Your task to perform on an android device: Go to Reddit.com Image 0: 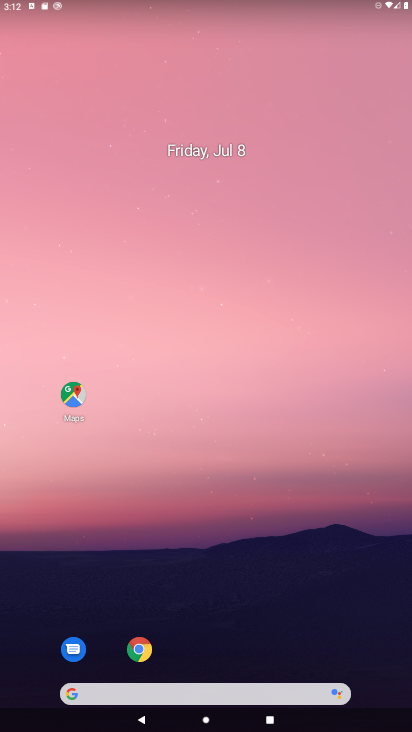
Step 0: click (141, 651)
Your task to perform on an android device: Go to Reddit.com Image 1: 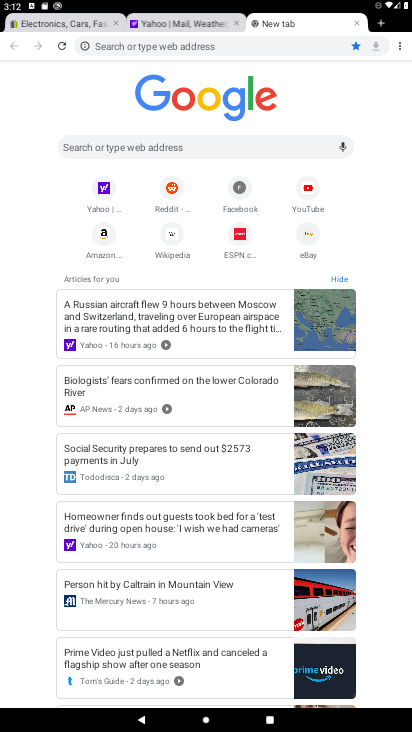
Step 1: click (128, 147)
Your task to perform on an android device: Go to Reddit.com Image 2: 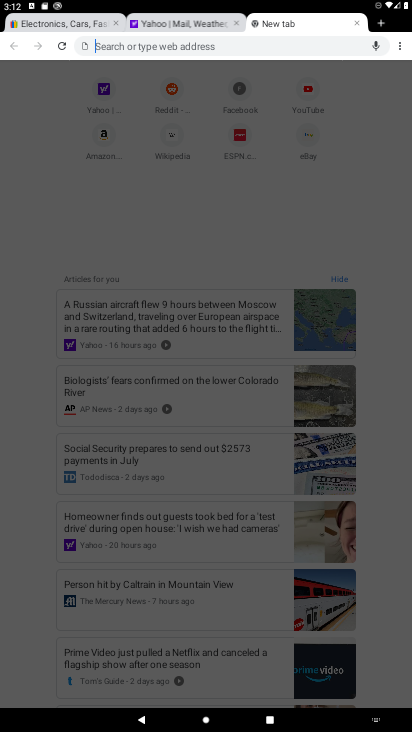
Step 2: type "Reddit.com"
Your task to perform on an android device: Go to Reddit.com Image 3: 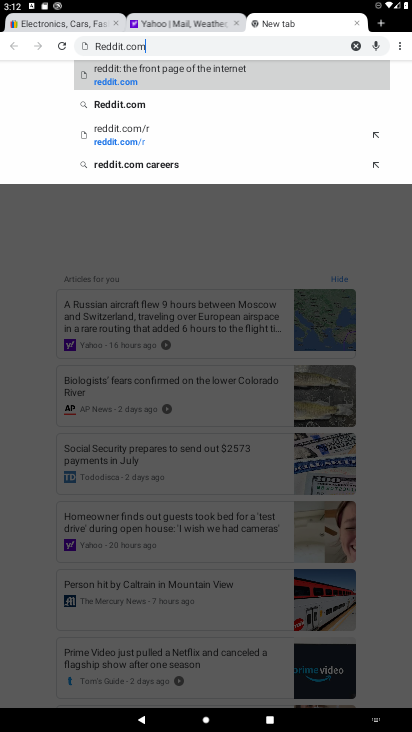
Step 3: click (101, 72)
Your task to perform on an android device: Go to Reddit.com Image 4: 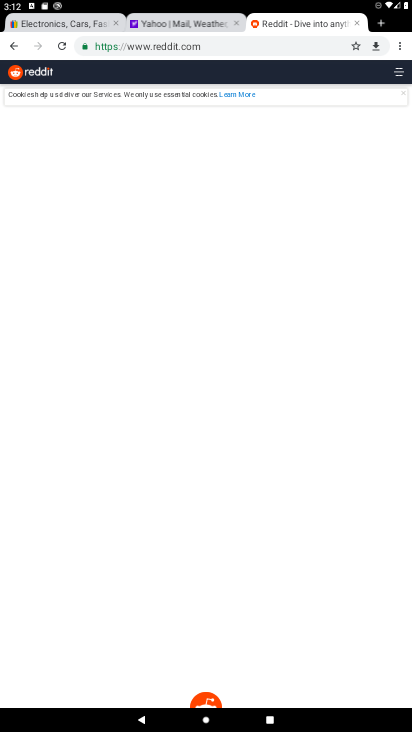
Step 4: task complete